Your task to perform on an android device: manage bookmarks in the chrome app Image 0: 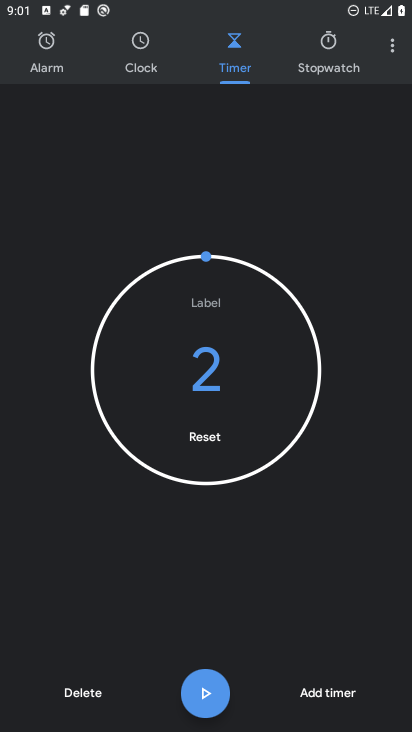
Step 0: press home button
Your task to perform on an android device: manage bookmarks in the chrome app Image 1: 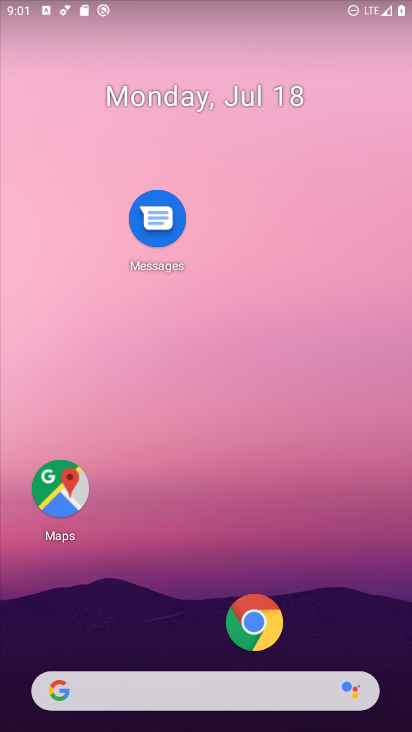
Step 1: drag from (280, 683) to (327, 516)
Your task to perform on an android device: manage bookmarks in the chrome app Image 2: 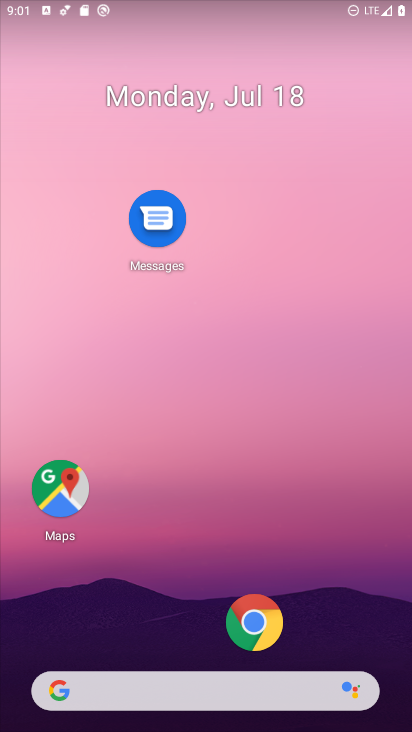
Step 2: click (270, 637)
Your task to perform on an android device: manage bookmarks in the chrome app Image 3: 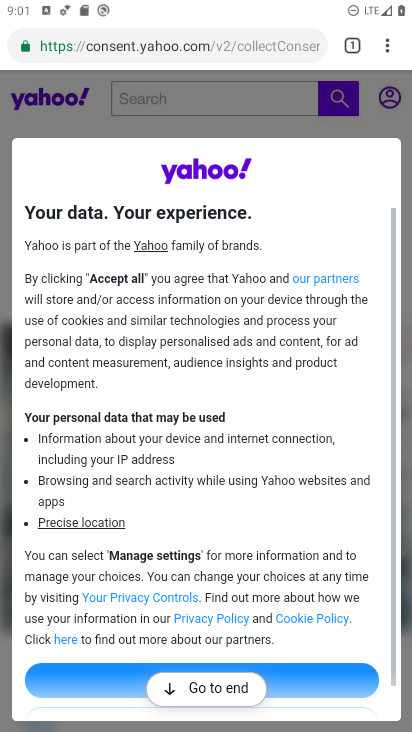
Step 3: click (387, 47)
Your task to perform on an android device: manage bookmarks in the chrome app Image 4: 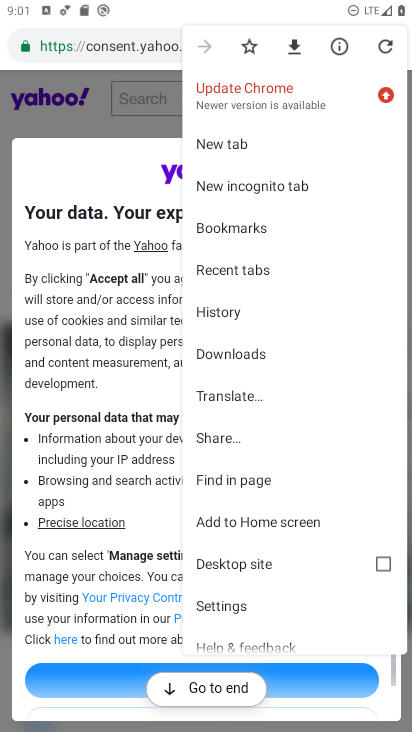
Step 4: click (255, 231)
Your task to perform on an android device: manage bookmarks in the chrome app Image 5: 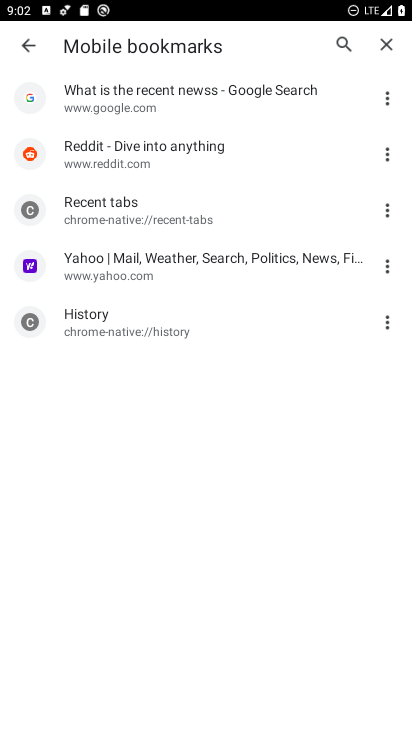
Step 5: task complete